Your task to perform on an android device: Go to Reddit.com Image 0: 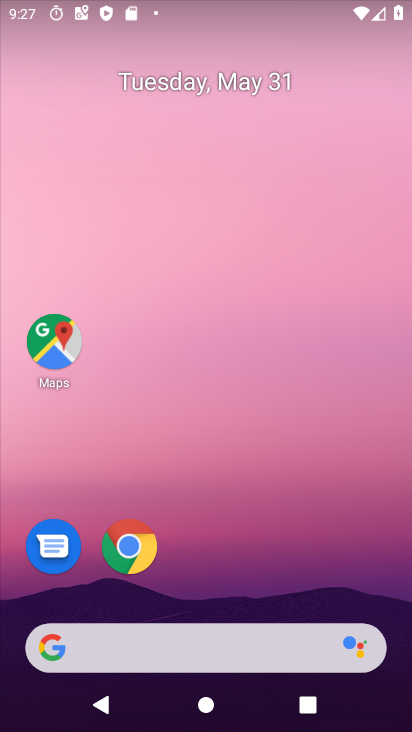
Step 0: click (138, 557)
Your task to perform on an android device: Go to Reddit.com Image 1: 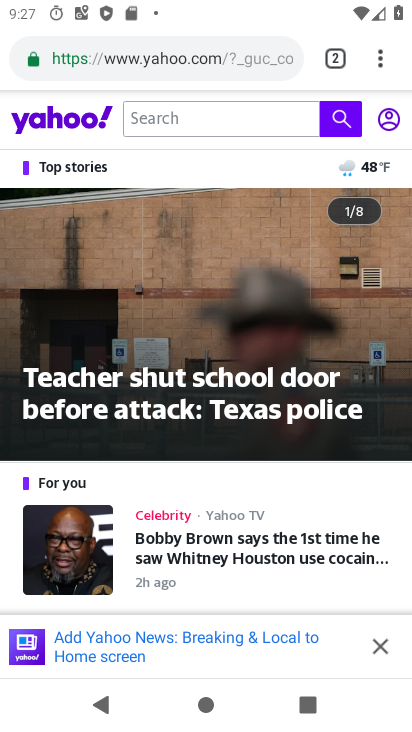
Step 1: click (332, 62)
Your task to perform on an android device: Go to Reddit.com Image 2: 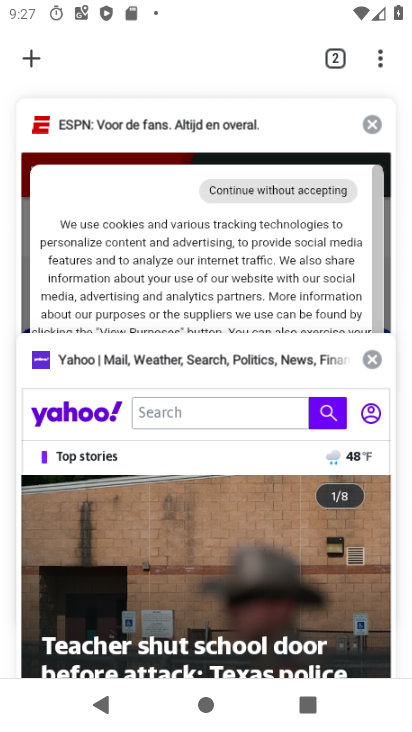
Step 2: click (29, 62)
Your task to perform on an android device: Go to Reddit.com Image 3: 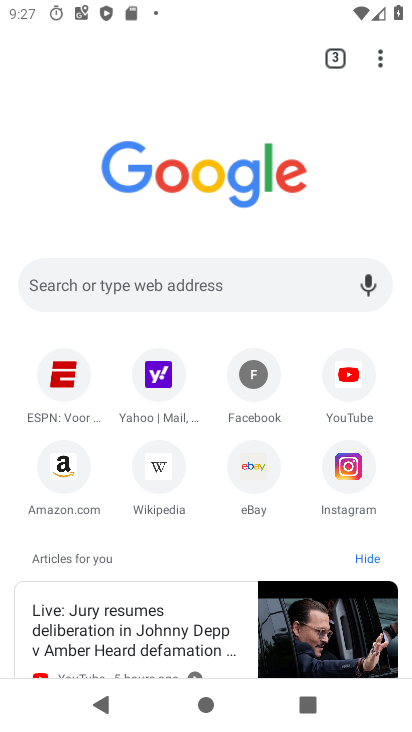
Step 3: click (284, 297)
Your task to perform on an android device: Go to Reddit.com Image 4: 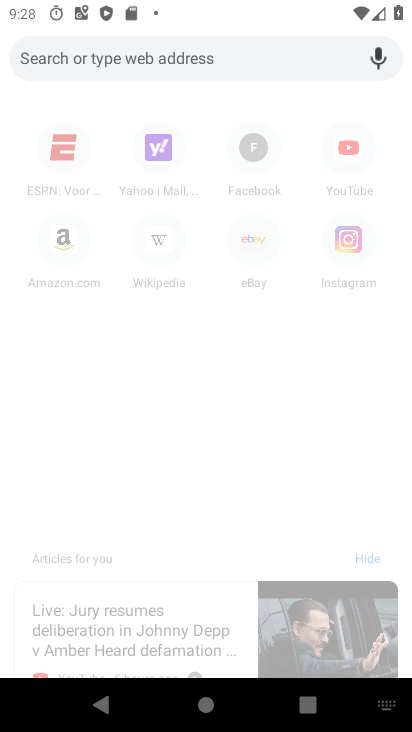
Step 4: type "reddit.com"
Your task to perform on an android device: Go to Reddit.com Image 5: 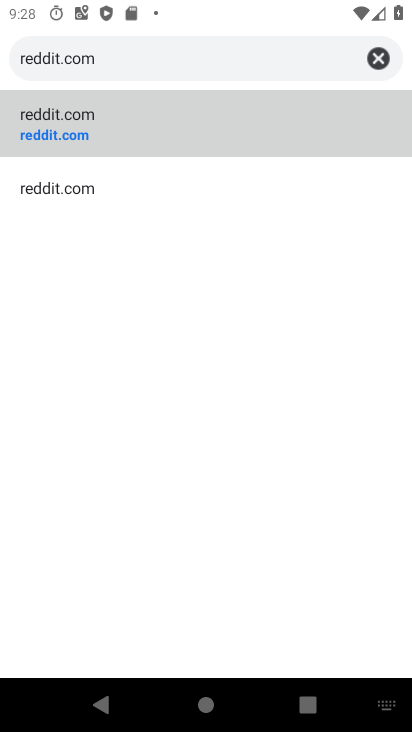
Step 5: click (42, 130)
Your task to perform on an android device: Go to Reddit.com Image 6: 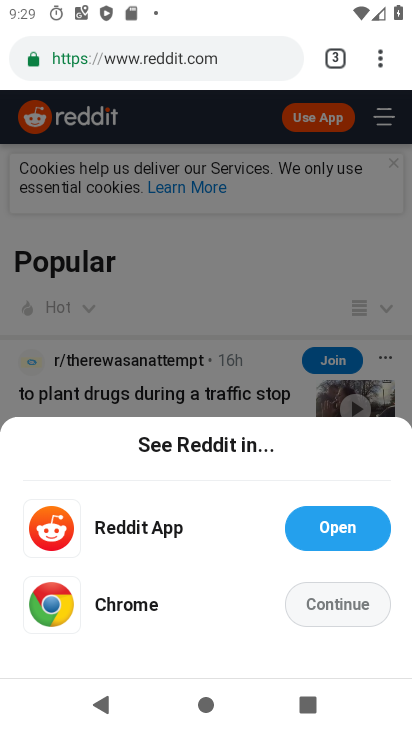
Step 6: click (340, 611)
Your task to perform on an android device: Go to Reddit.com Image 7: 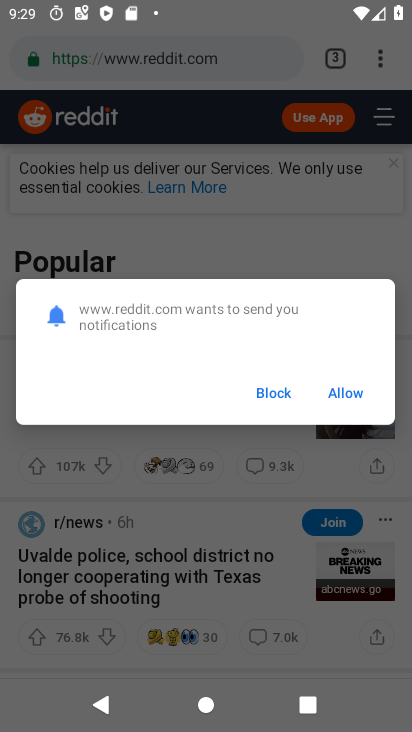
Step 7: click (344, 393)
Your task to perform on an android device: Go to Reddit.com Image 8: 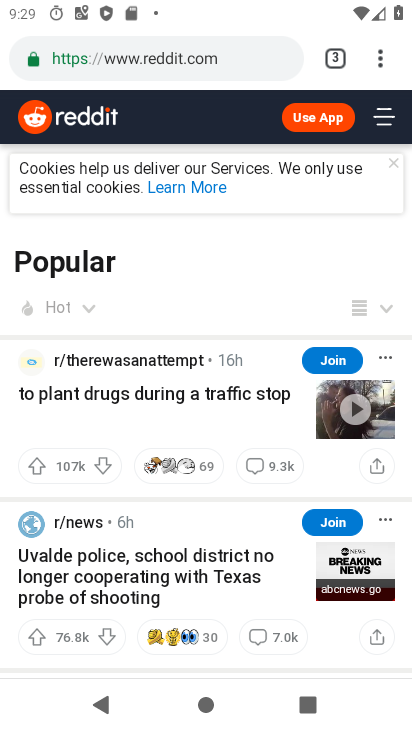
Step 8: task complete